Your task to perform on an android device: refresh tabs in the chrome app Image 0: 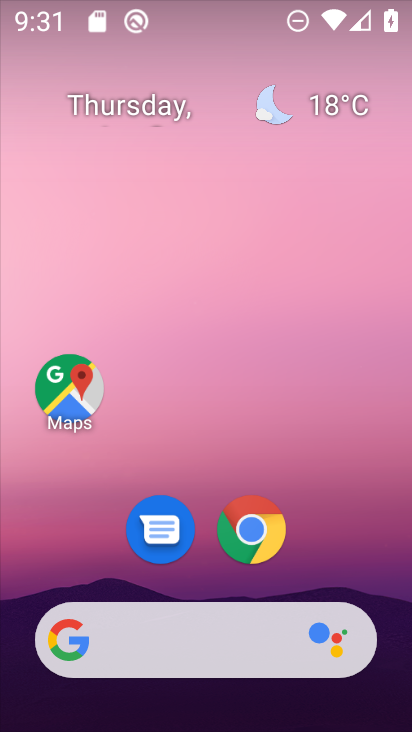
Step 0: click (250, 534)
Your task to perform on an android device: refresh tabs in the chrome app Image 1: 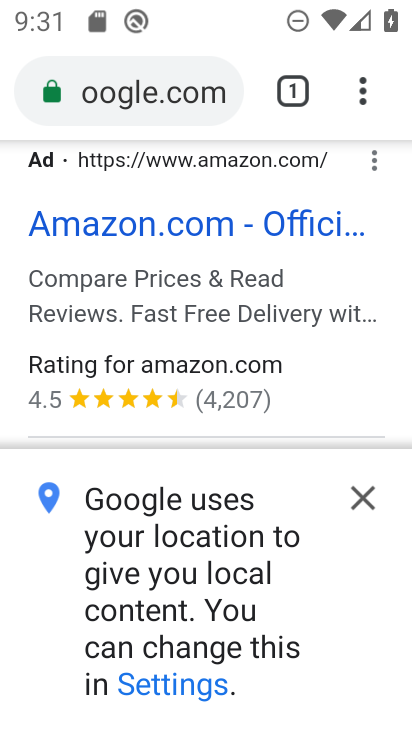
Step 1: click (364, 88)
Your task to perform on an android device: refresh tabs in the chrome app Image 2: 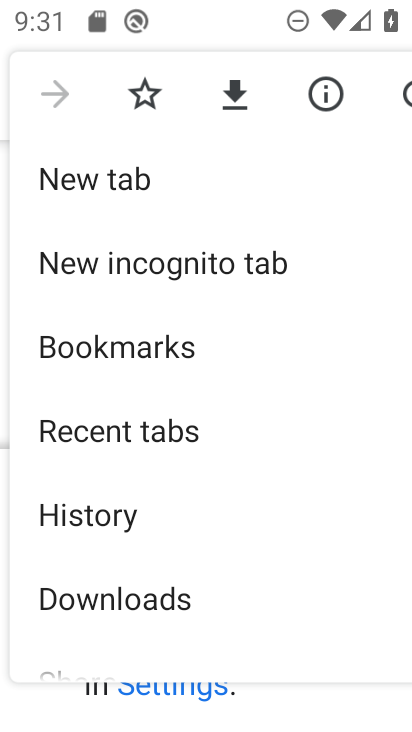
Step 2: click (406, 88)
Your task to perform on an android device: refresh tabs in the chrome app Image 3: 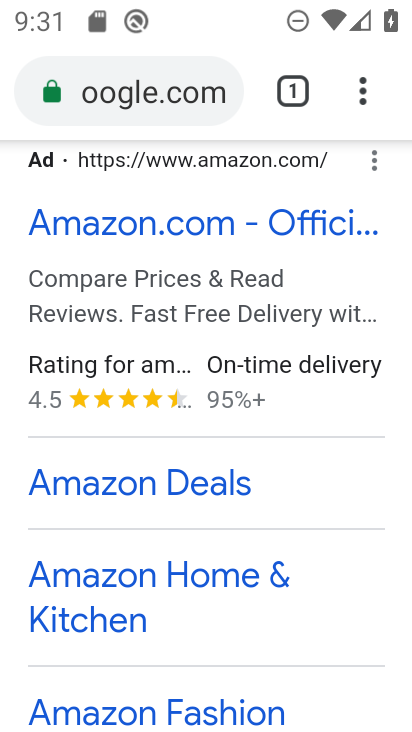
Step 3: task complete